Your task to perform on an android device: open app "Gmail" (install if not already installed) and go to login screen Image 0: 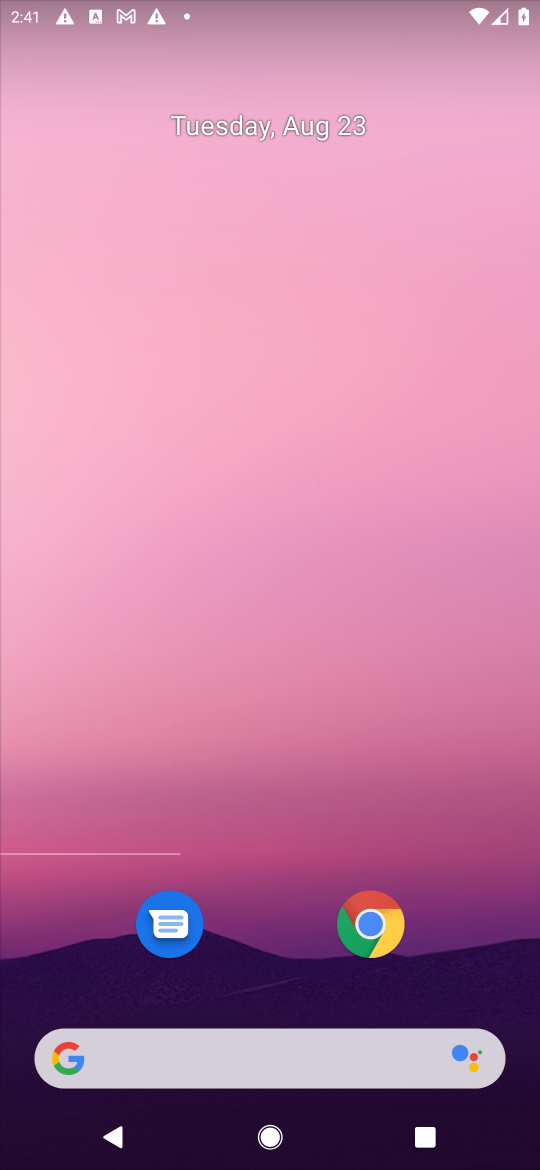
Step 0: press home button
Your task to perform on an android device: open app "Gmail" (install if not already installed) and go to login screen Image 1: 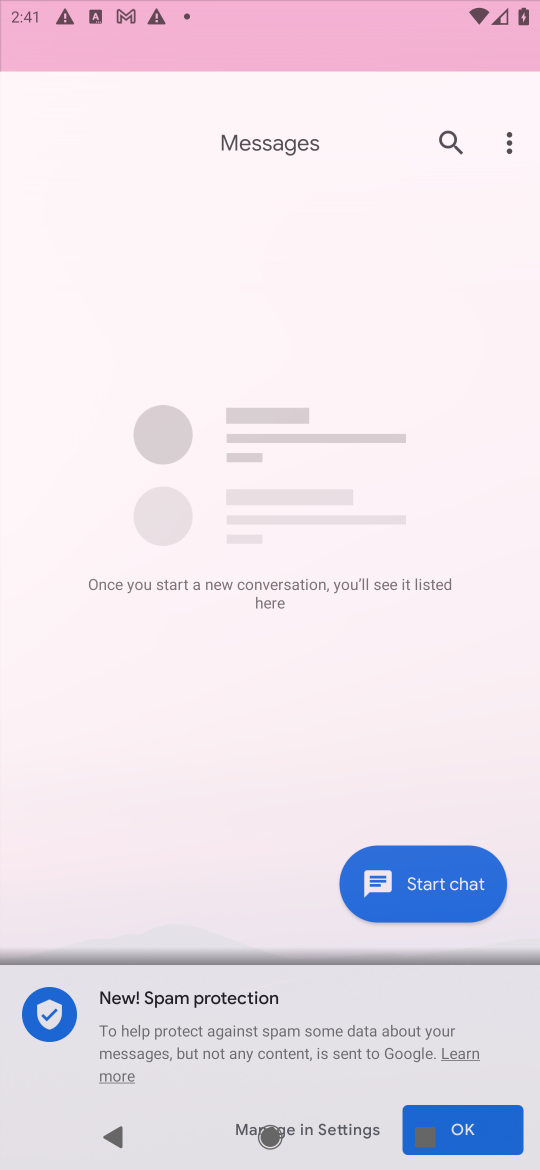
Step 1: drag from (506, 966) to (475, 226)
Your task to perform on an android device: open app "Gmail" (install if not already installed) and go to login screen Image 2: 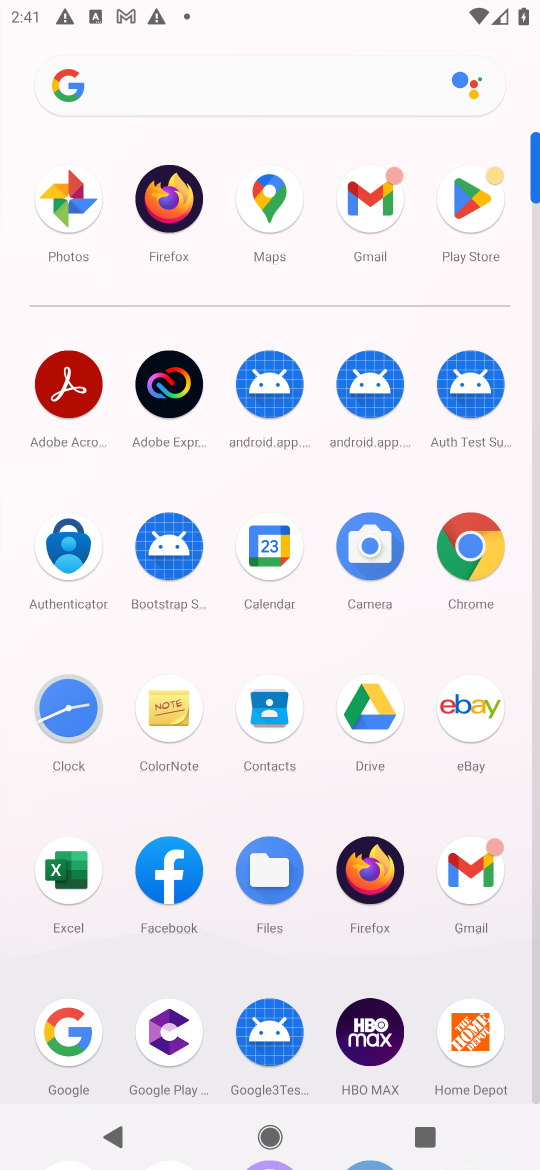
Step 2: click (472, 208)
Your task to perform on an android device: open app "Gmail" (install if not already installed) and go to login screen Image 3: 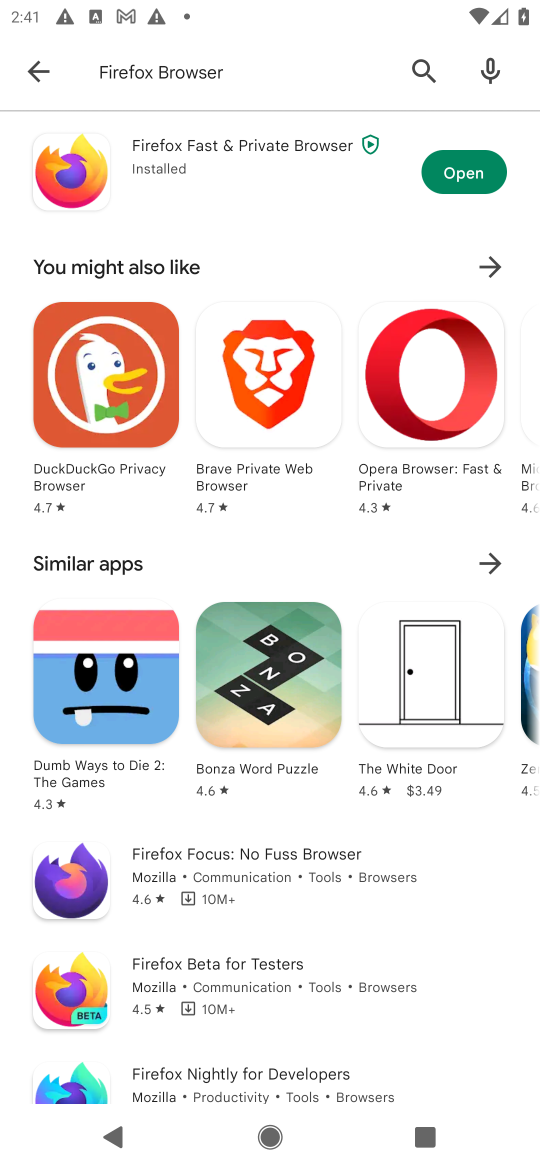
Step 3: press back button
Your task to perform on an android device: open app "Gmail" (install if not already installed) and go to login screen Image 4: 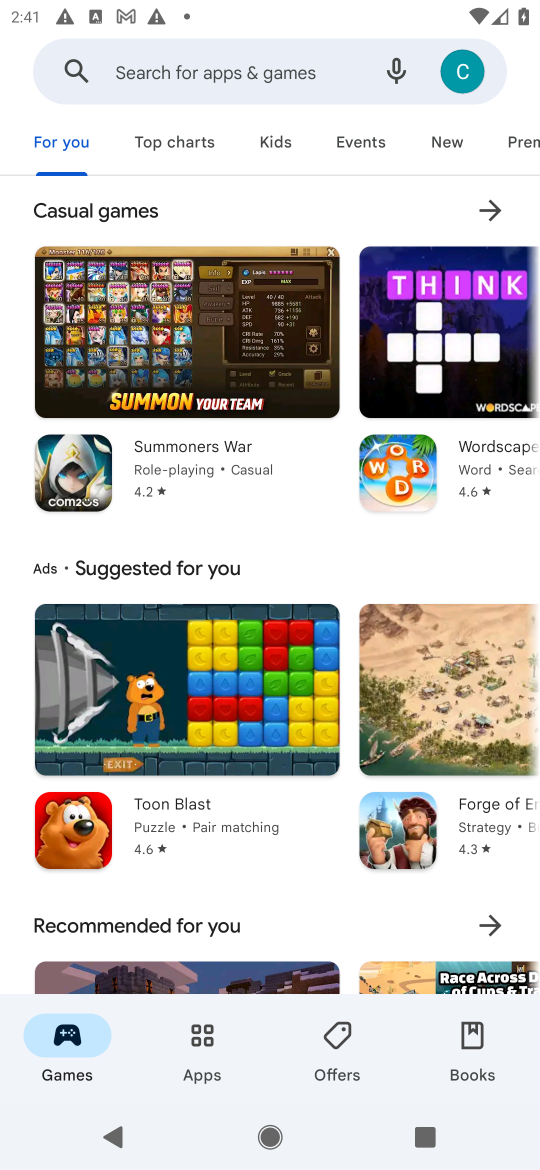
Step 4: click (285, 68)
Your task to perform on an android device: open app "Gmail" (install if not already installed) and go to login screen Image 5: 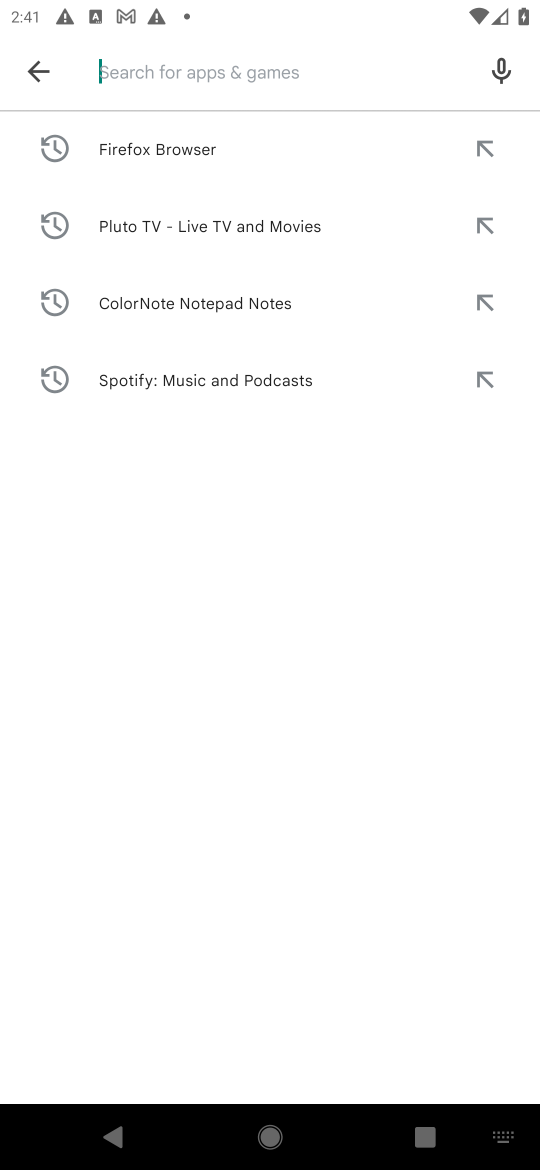
Step 5: press enter
Your task to perform on an android device: open app "Gmail" (install if not already installed) and go to login screen Image 6: 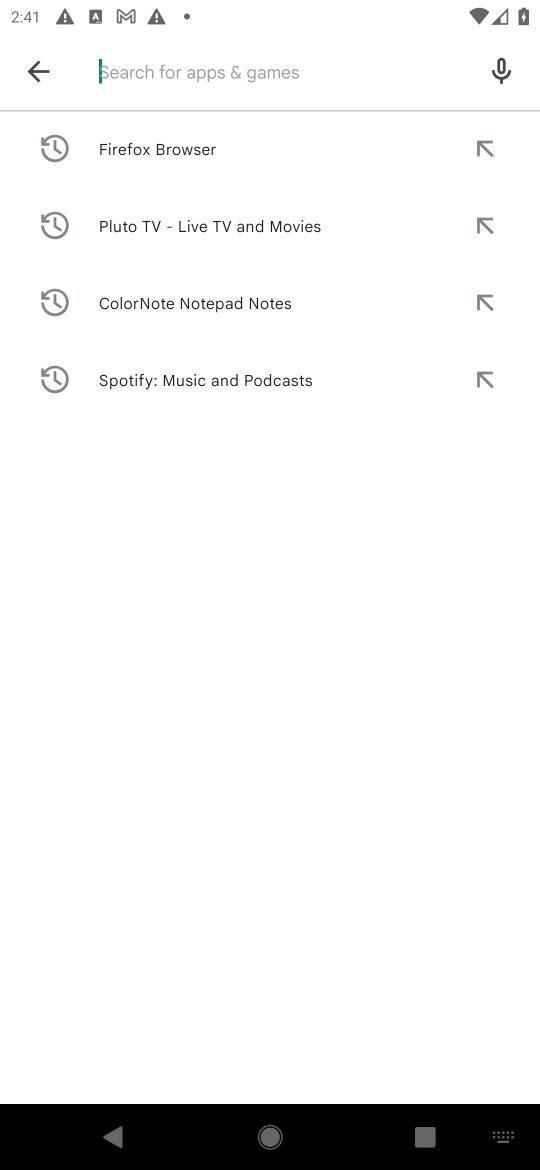
Step 6: type "gmail"
Your task to perform on an android device: open app "Gmail" (install if not already installed) and go to login screen Image 7: 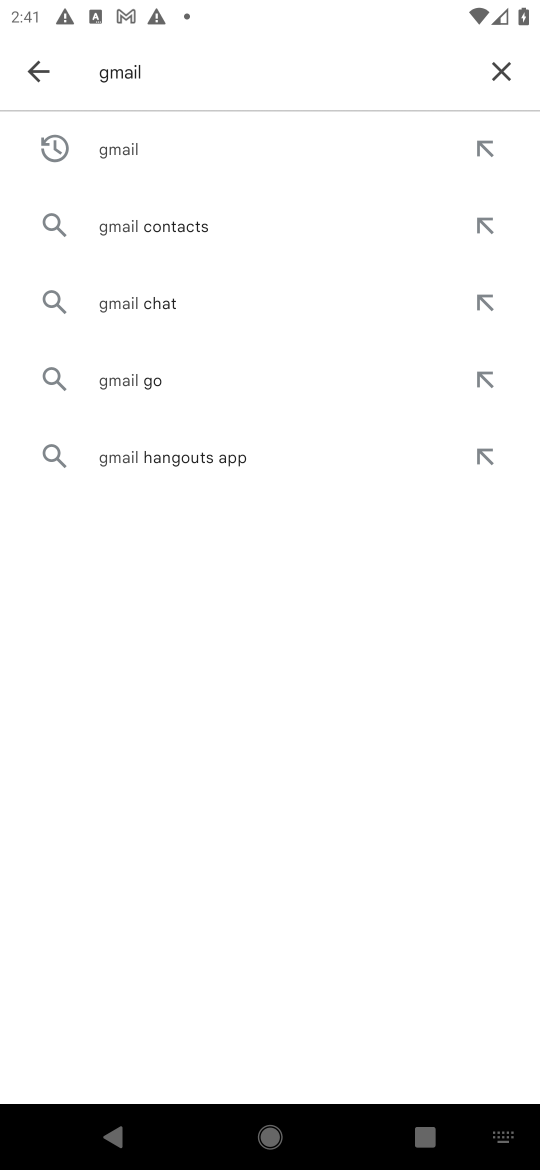
Step 7: click (175, 143)
Your task to perform on an android device: open app "Gmail" (install if not already installed) and go to login screen Image 8: 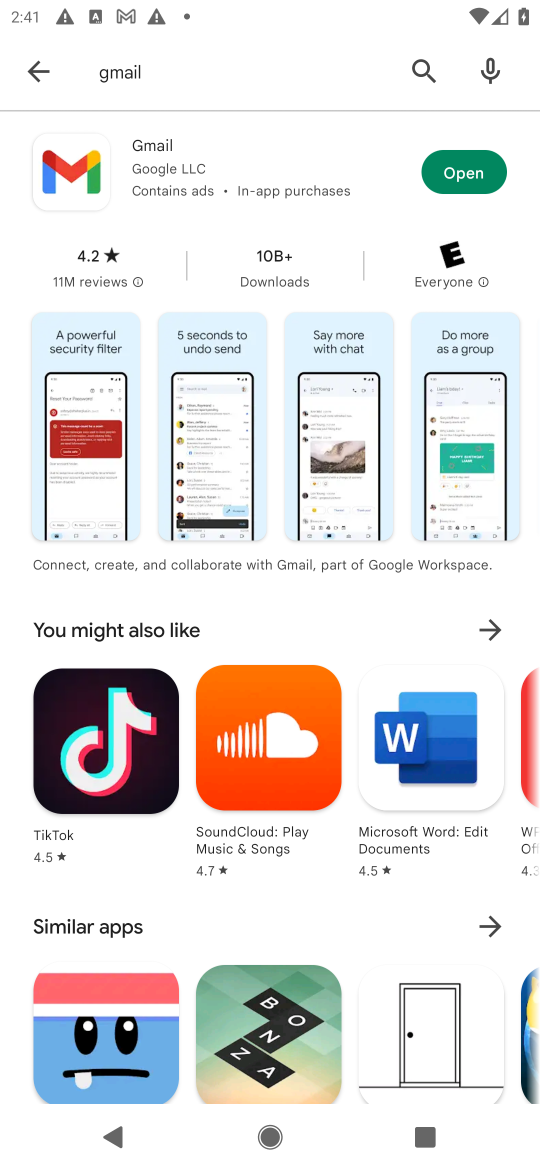
Step 8: click (475, 174)
Your task to perform on an android device: open app "Gmail" (install if not already installed) and go to login screen Image 9: 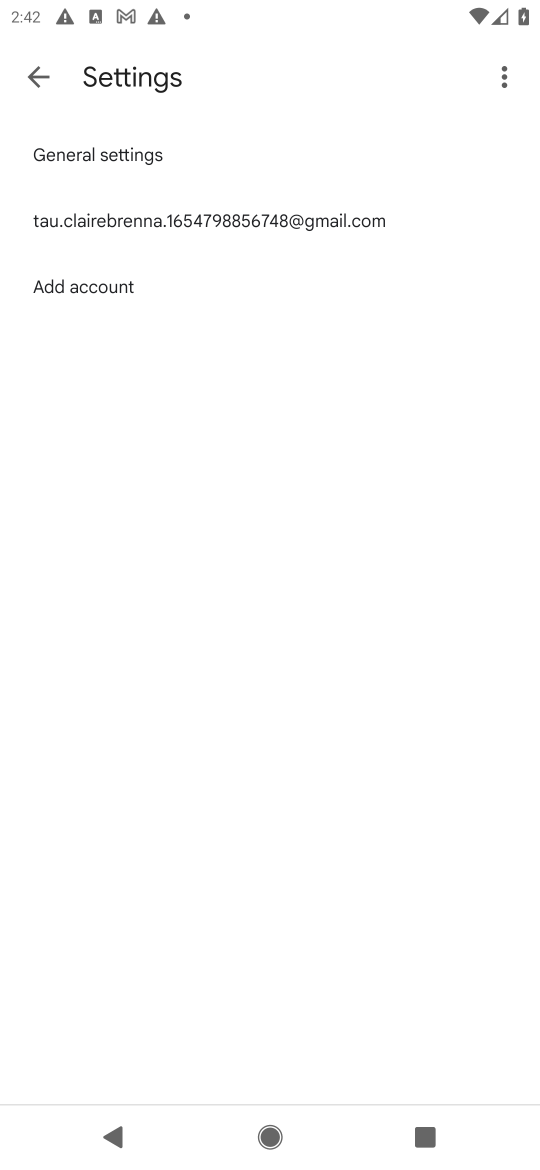
Step 9: task complete